Your task to perform on an android device: Open Amazon Image 0: 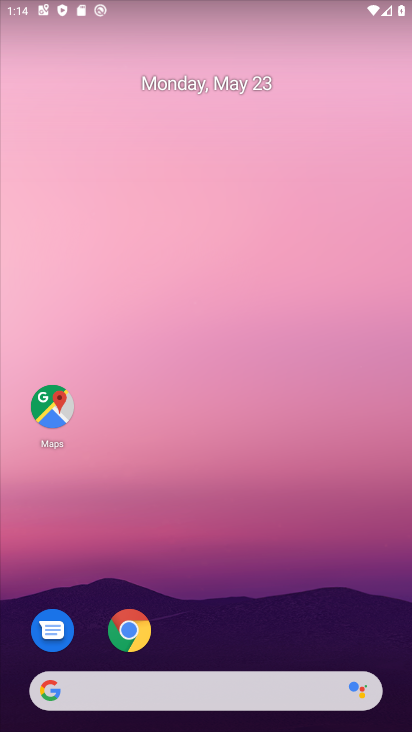
Step 0: drag from (270, 617) to (276, 238)
Your task to perform on an android device: Open Amazon Image 1: 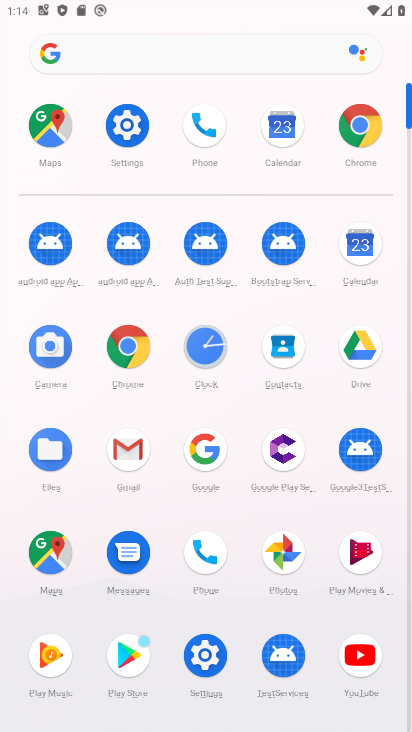
Step 1: click (135, 342)
Your task to perform on an android device: Open Amazon Image 2: 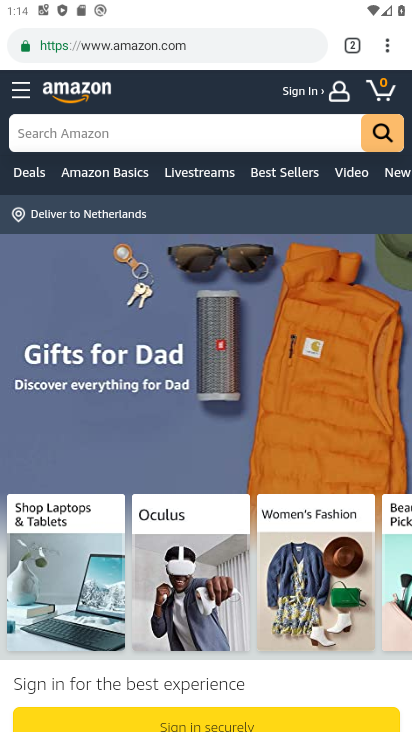
Step 2: task complete